Your task to perform on an android device: Do I have any events today? Image 0: 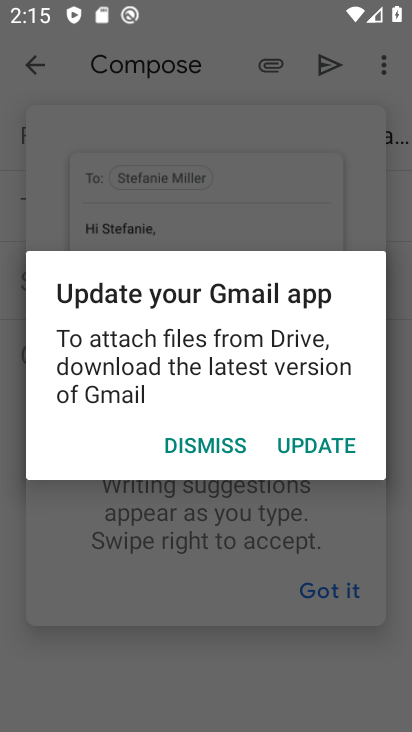
Step 0: press home button
Your task to perform on an android device: Do I have any events today? Image 1: 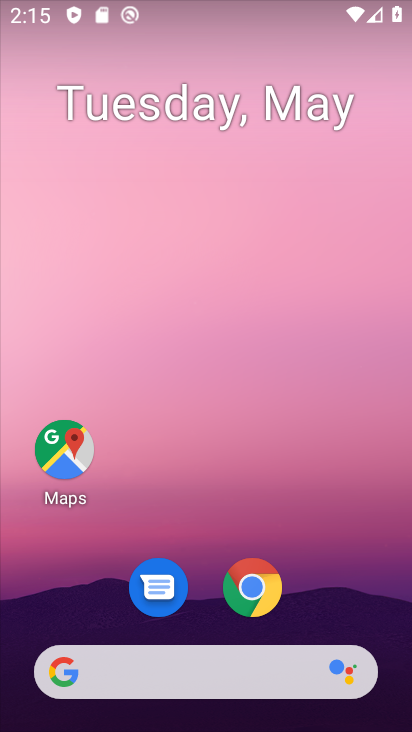
Step 1: click (204, 94)
Your task to perform on an android device: Do I have any events today? Image 2: 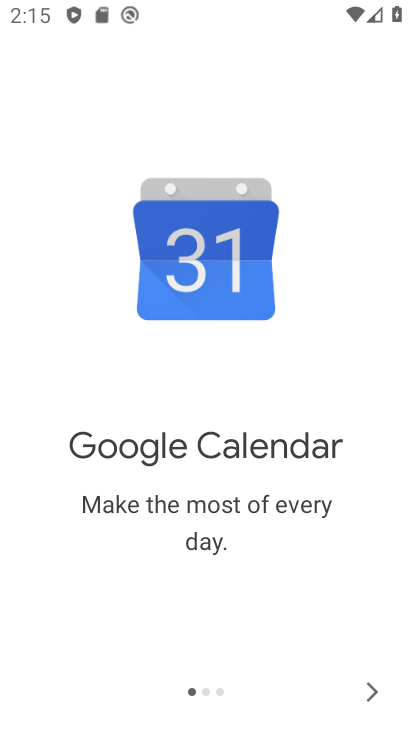
Step 2: click (369, 680)
Your task to perform on an android device: Do I have any events today? Image 3: 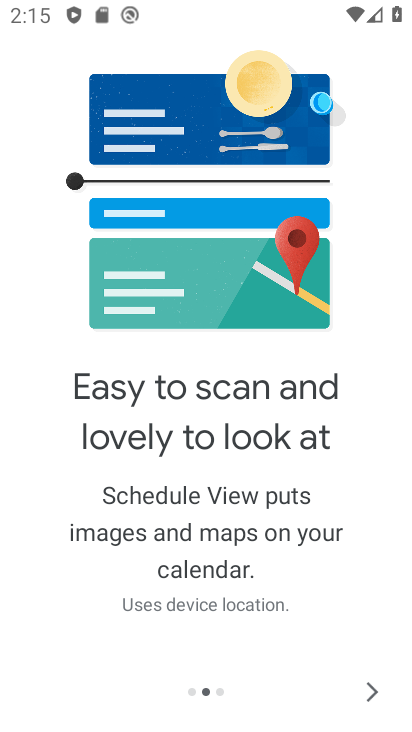
Step 3: click (369, 680)
Your task to perform on an android device: Do I have any events today? Image 4: 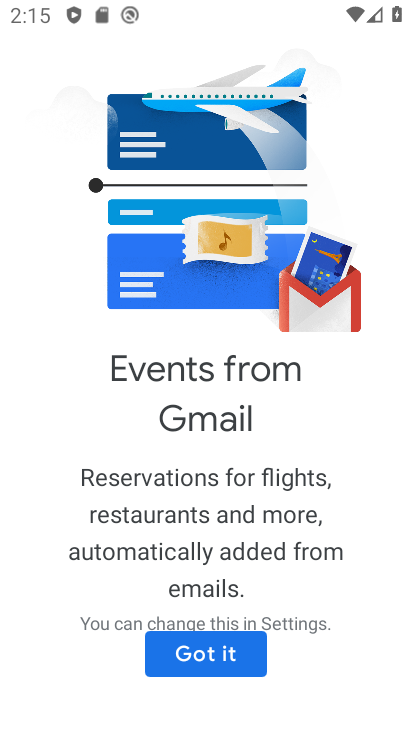
Step 4: click (246, 655)
Your task to perform on an android device: Do I have any events today? Image 5: 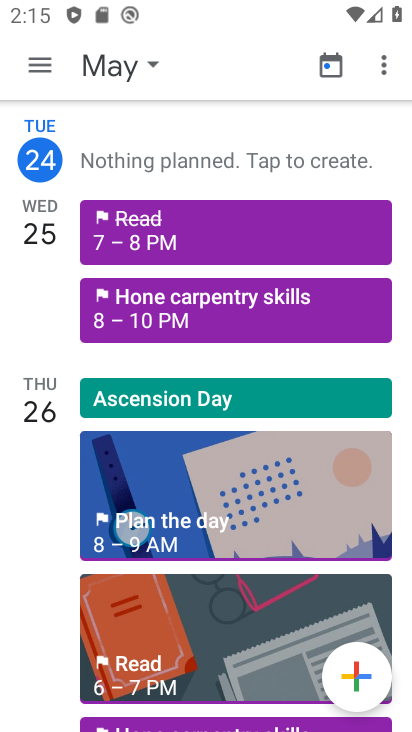
Step 5: task complete